Your task to perform on an android device: See recent photos Image 0: 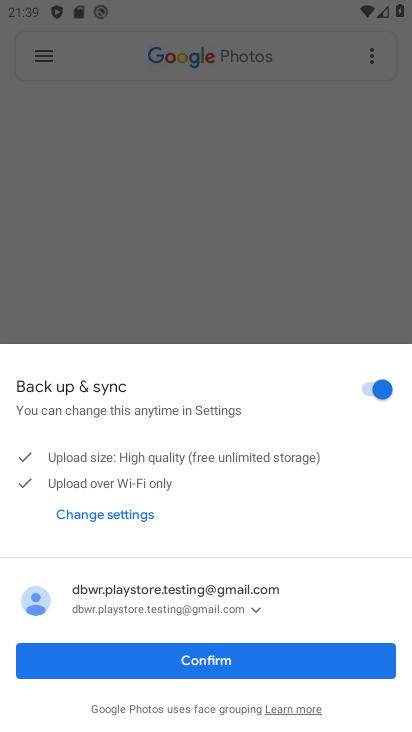
Step 0: click (221, 663)
Your task to perform on an android device: See recent photos Image 1: 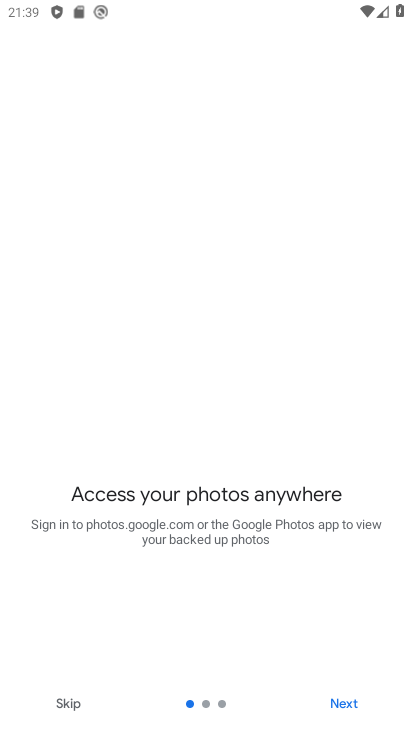
Step 1: click (74, 709)
Your task to perform on an android device: See recent photos Image 2: 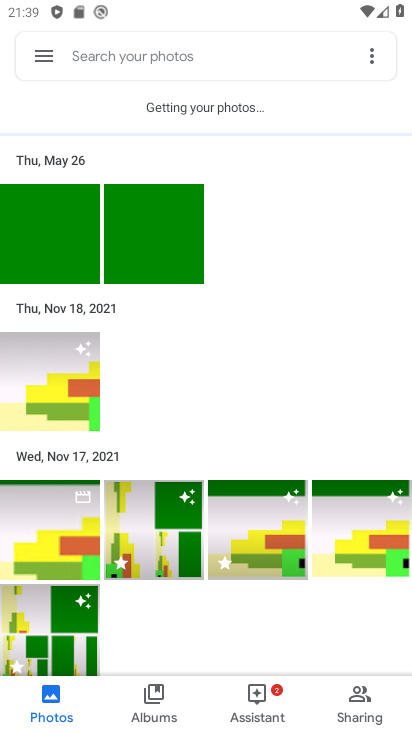
Step 2: task complete